Your task to perform on an android device: Open the phone app and click the voicemail tab. Image 0: 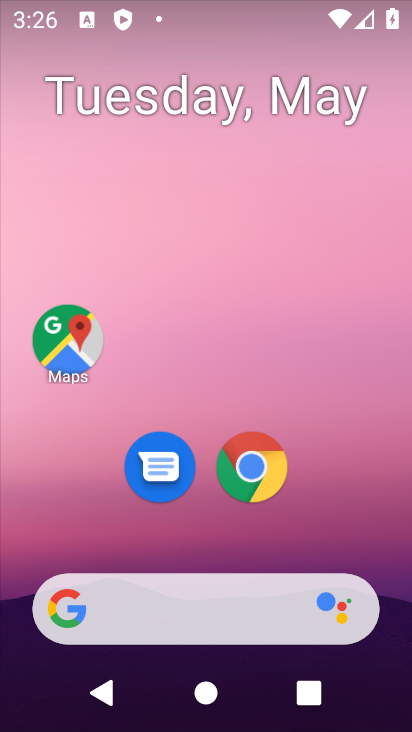
Step 0: task complete